Your task to perform on an android device: Do I have any events tomorrow? Image 0: 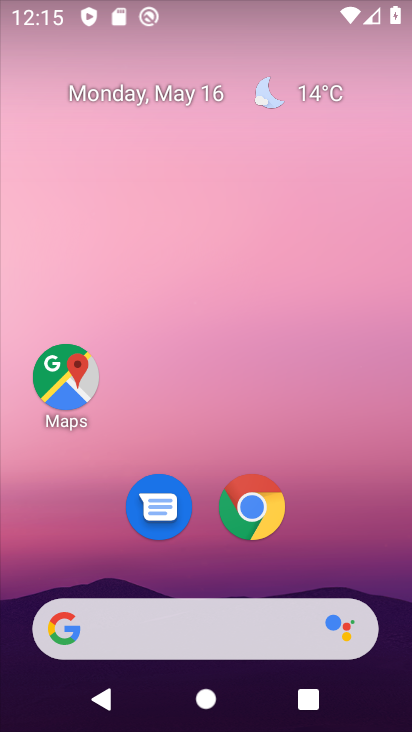
Step 0: drag from (342, 559) to (260, 70)
Your task to perform on an android device: Do I have any events tomorrow? Image 1: 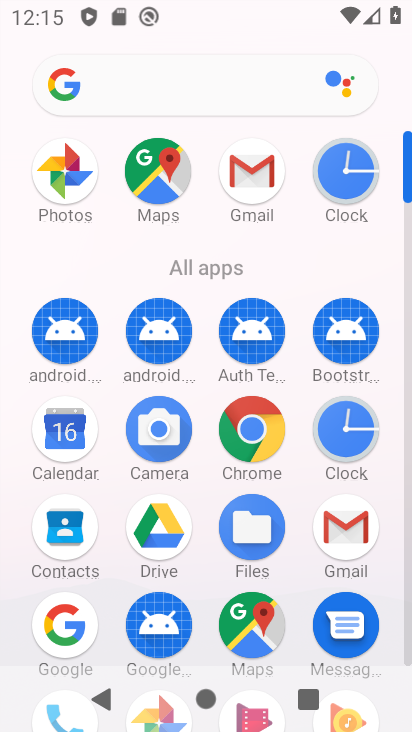
Step 1: click (88, 450)
Your task to perform on an android device: Do I have any events tomorrow? Image 2: 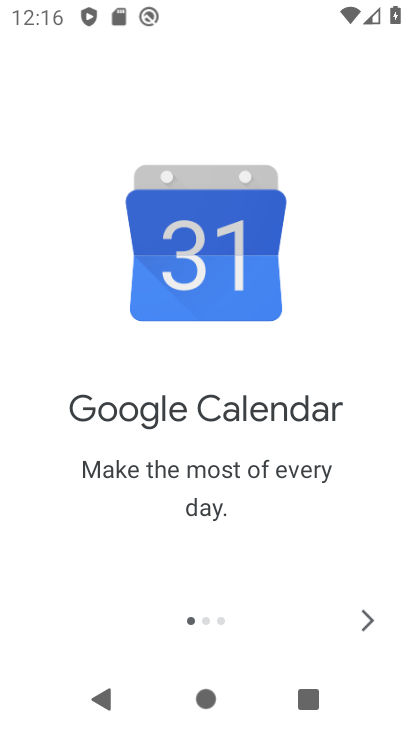
Step 2: click (361, 621)
Your task to perform on an android device: Do I have any events tomorrow? Image 3: 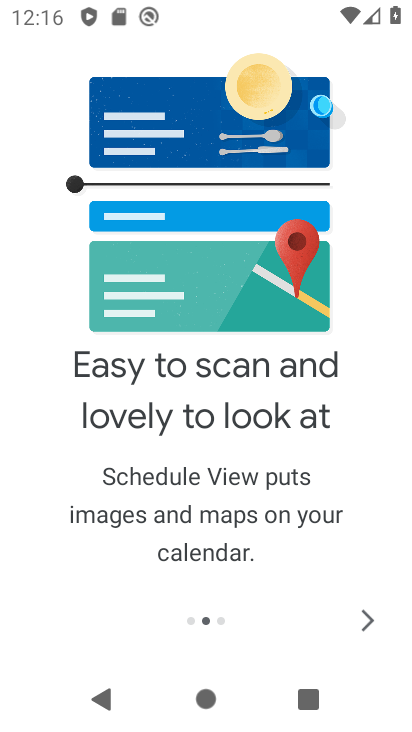
Step 3: click (355, 617)
Your task to perform on an android device: Do I have any events tomorrow? Image 4: 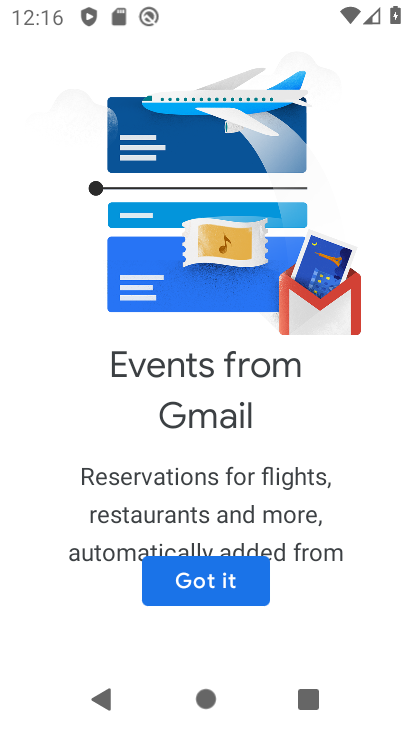
Step 4: click (355, 617)
Your task to perform on an android device: Do I have any events tomorrow? Image 5: 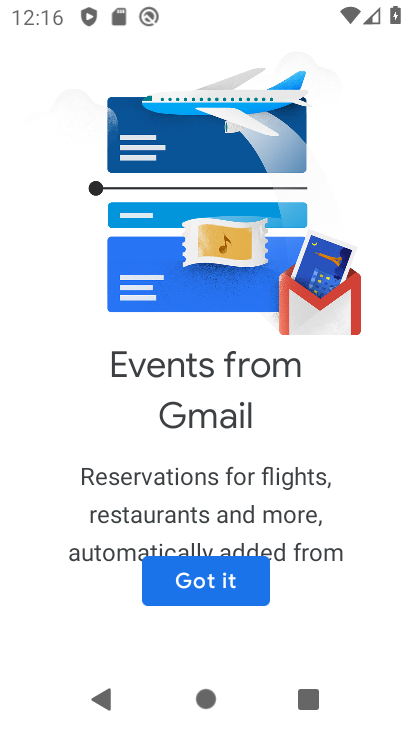
Step 5: click (223, 584)
Your task to perform on an android device: Do I have any events tomorrow? Image 6: 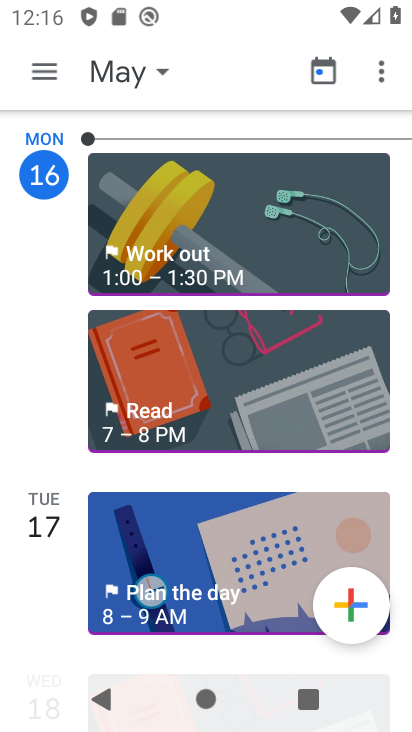
Step 6: click (57, 79)
Your task to perform on an android device: Do I have any events tomorrow? Image 7: 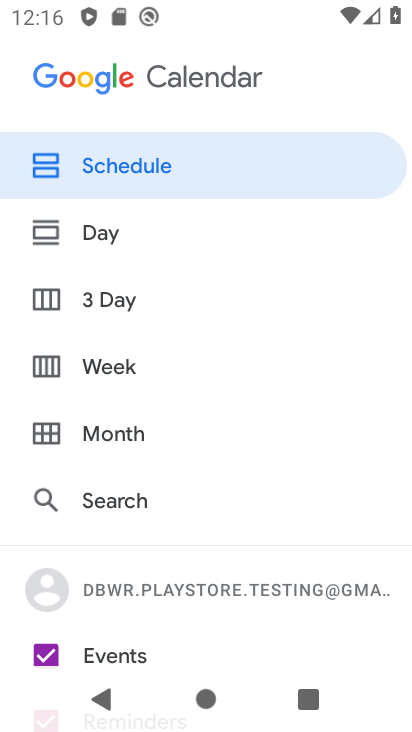
Step 7: click (147, 242)
Your task to perform on an android device: Do I have any events tomorrow? Image 8: 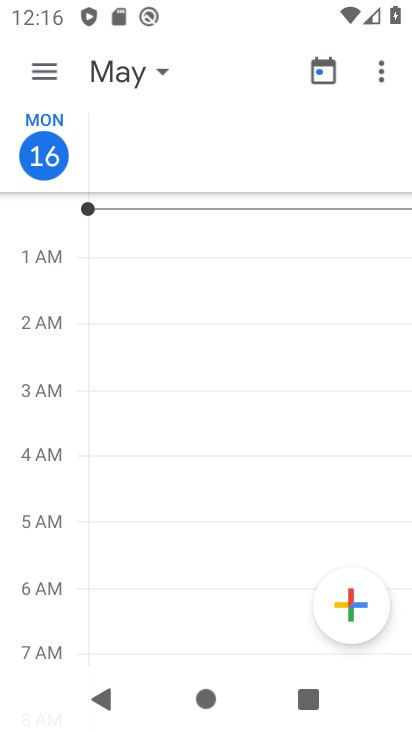
Step 8: task complete